Your task to perform on an android device: Open Google Chrome and open the bookmarks view Image 0: 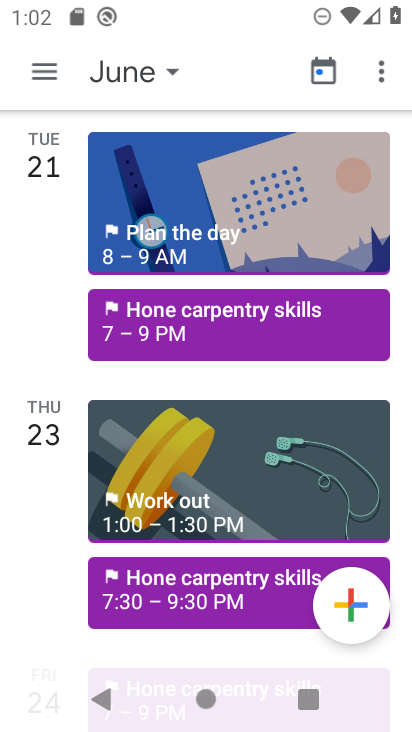
Step 0: press home button
Your task to perform on an android device: Open Google Chrome and open the bookmarks view Image 1: 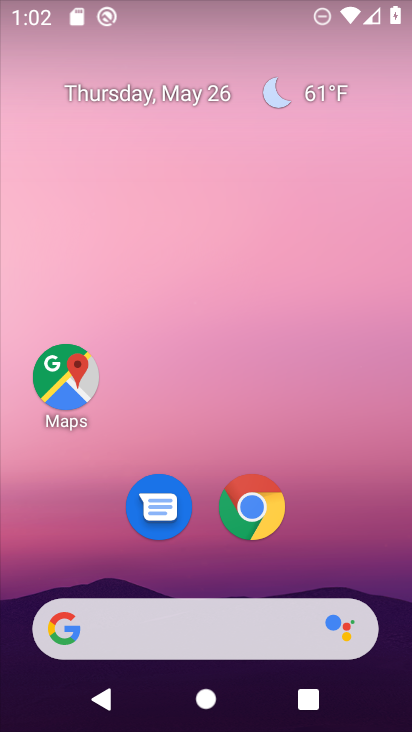
Step 1: click (274, 521)
Your task to perform on an android device: Open Google Chrome and open the bookmarks view Image 2: 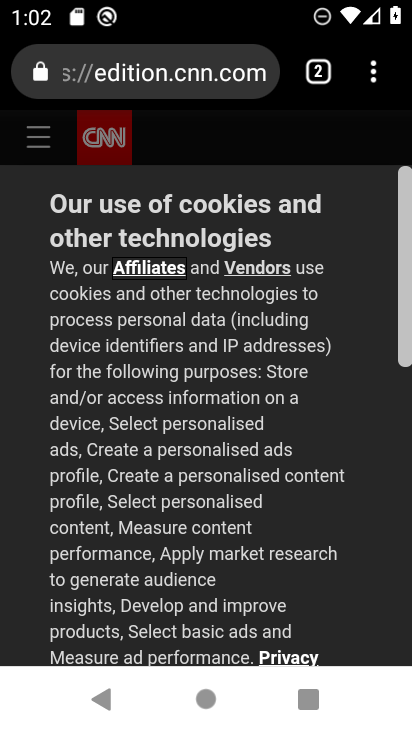
Step 2: click (362, 73)
Your task to perform on an android device: Open Google Chrome and open the bookmarks view Image 3: 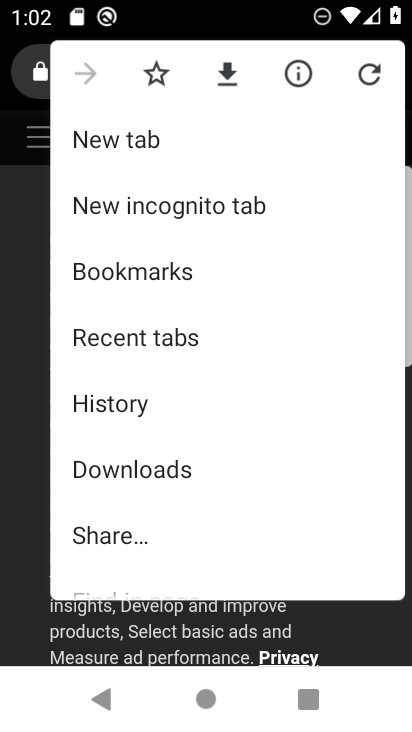
Step 3: drag from (197, 508) to (177, 353)
Your task to perform on an android device: Open Google Chrome and open the bookmarks view Image 4: 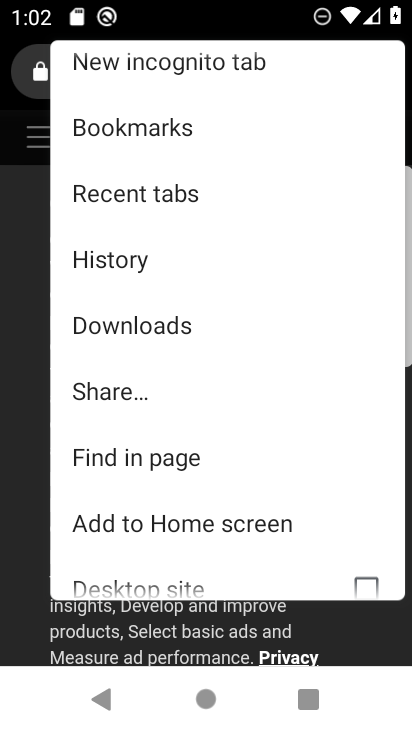
Step 4: click (179, 114)
Your task to perform on an android device: Open Google Chrome and open the bookmarks view Image 5: 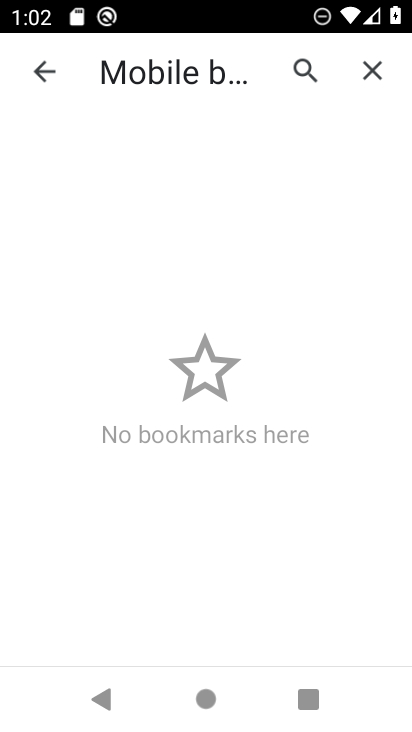
Step 5: task complete